Your task to perform on an android device: Check the weather Image 0: 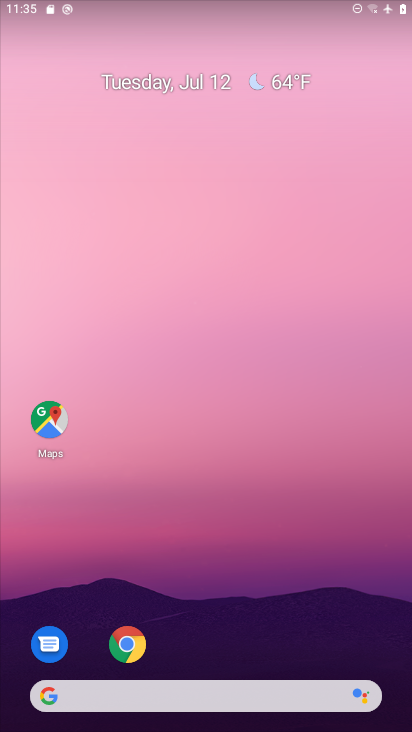
Step 0: drag from (302, 628) to (268, 157)
Your task to perform on an android device: Check the weather Image 1: 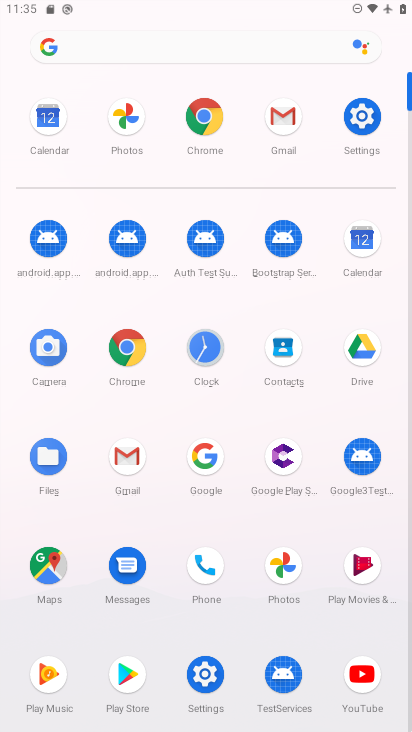
Step 1: click (237, 54)
Your task to perform on an android device: Check the weather Image 2: 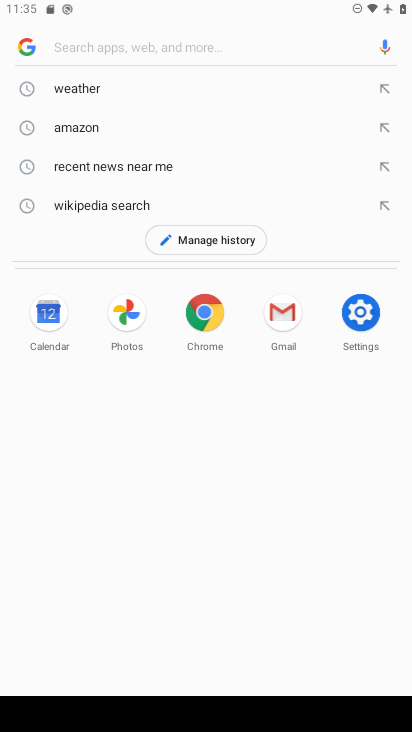
Step 2: type "WHETHER"
Your task to perform on an android device: Check the weather Image 3: 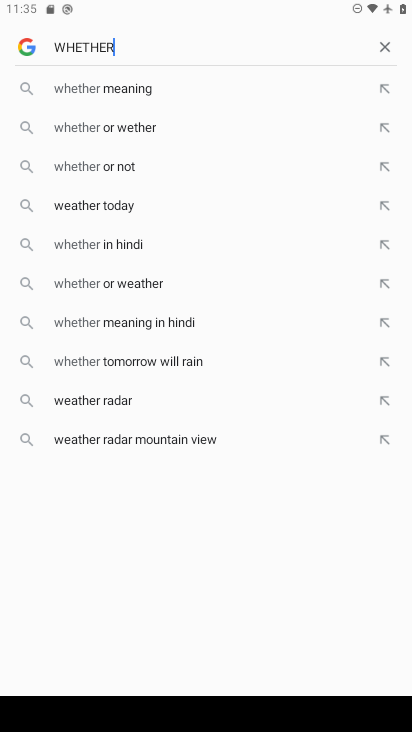
Step 3: click (378, 62)
Your task to perform on an android device: Check the weather Image 4: 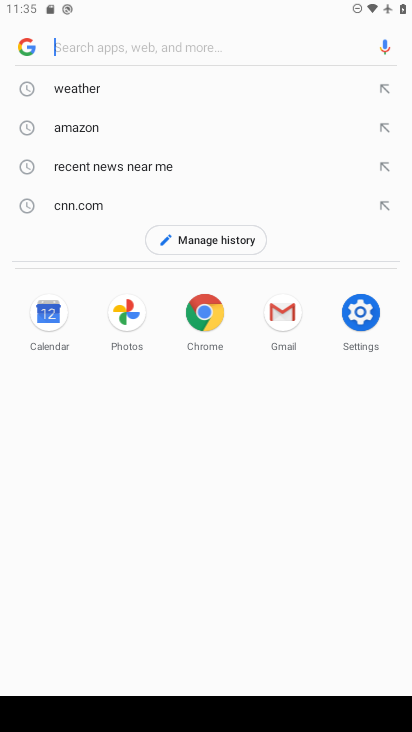
Step 4: click (239, 96)
Your task to perform on an android device: Check the weather Image 5: 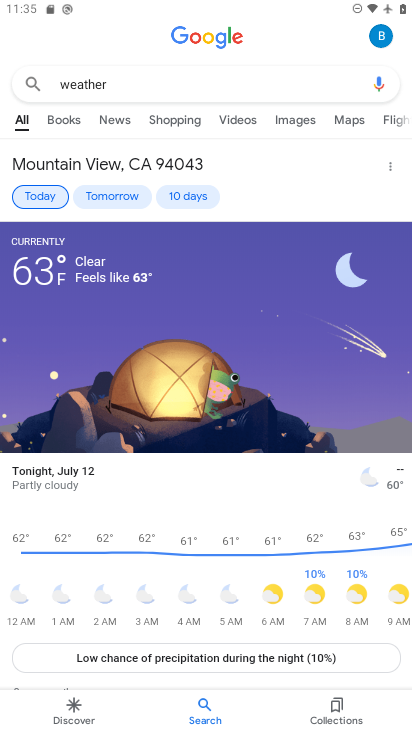
Step 5: task complete